Your task to perform on an android device: Go to Google Image 0: 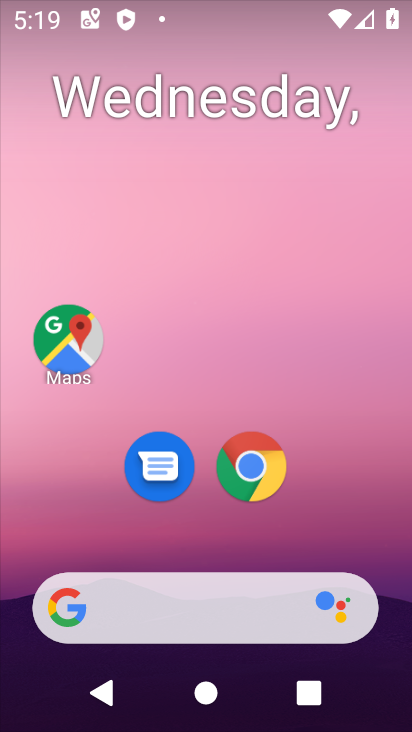
Step 0: click (272, 476)
Your task to perform on an android device: Go to Google Image 1: 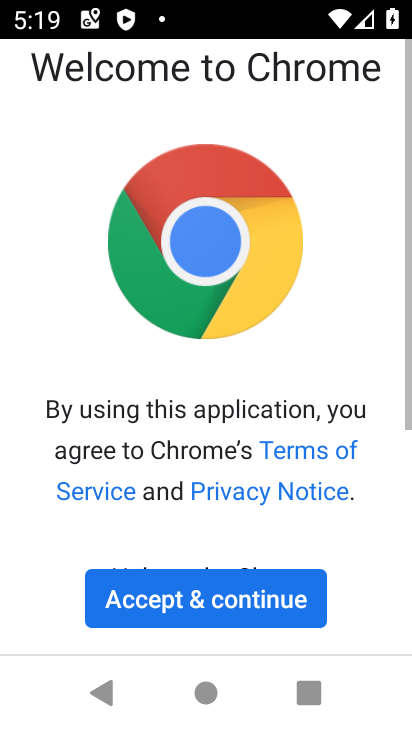
Step 1: press home button
Your task to perform on an android device: Go to Google Image 2: 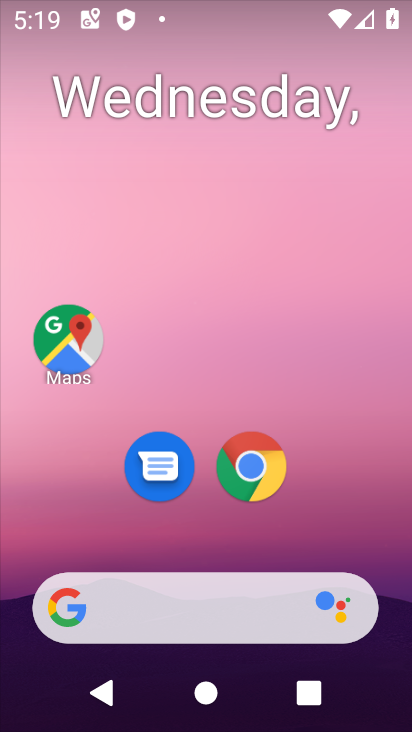
Step 2: drag from (334, 549) to (323, 0)
Your task to perform on an android device: Go to Google Image 3: 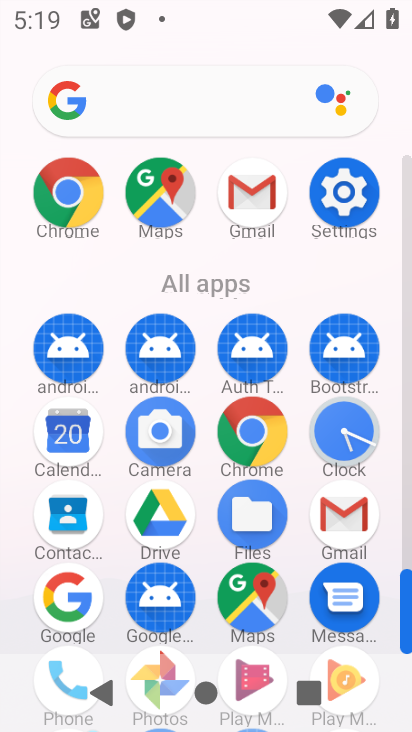
Step 3: click (70, 600)
Your task to perform on an android device: Go to Google Image 4: 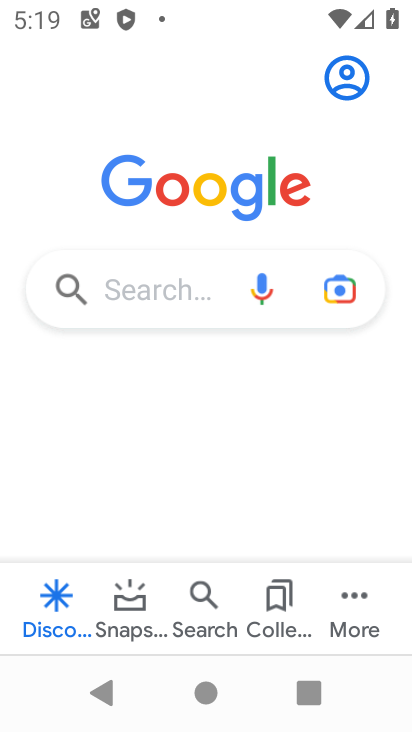
Step 4: task complete